Your task to perform on an android device: Do I have any events tomorrow? Image 0: 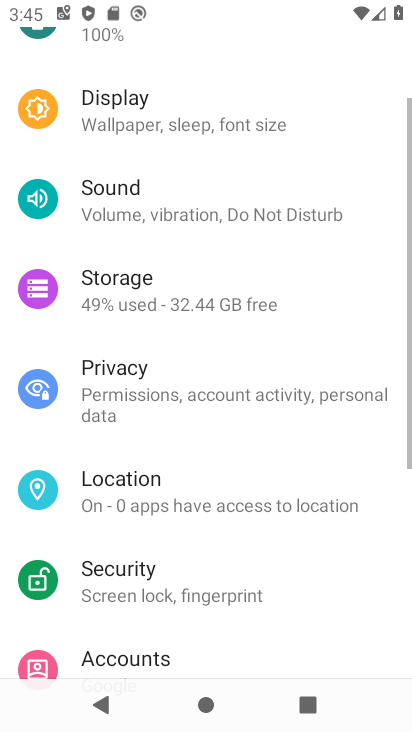
Step 0: click (264, 587)
Your task to perform on an android device: Do I have any events tomorrow? Image 1: 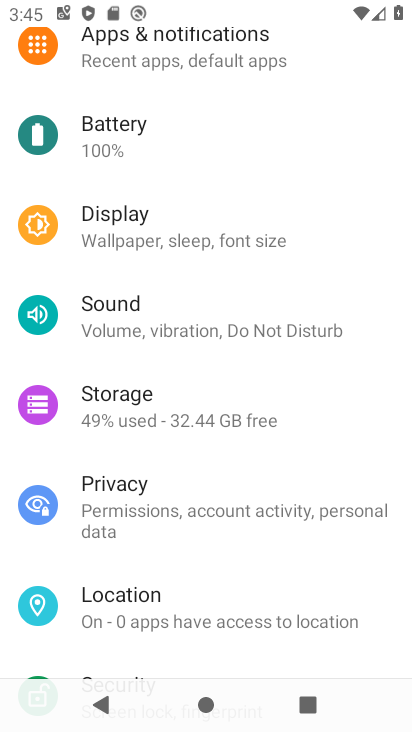
Step 1: press home button
Your task to perform on an android device: Do I have any events tomorrow? Image 2: 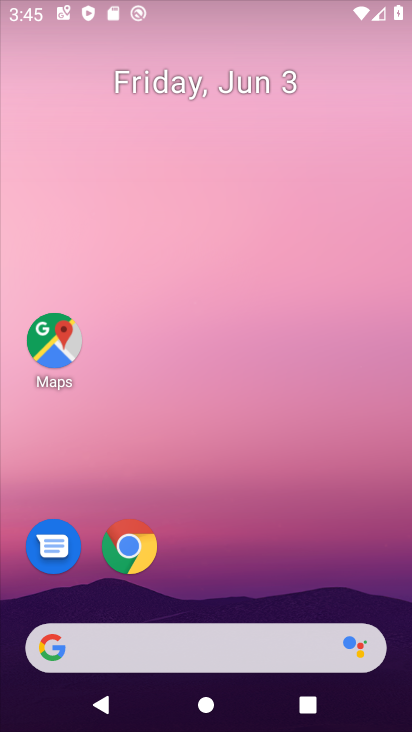
Step 2: drag from (239, 531) to (297, 49)
Your task to perform on an android device: Do I have any events tomorrow? Image 3: 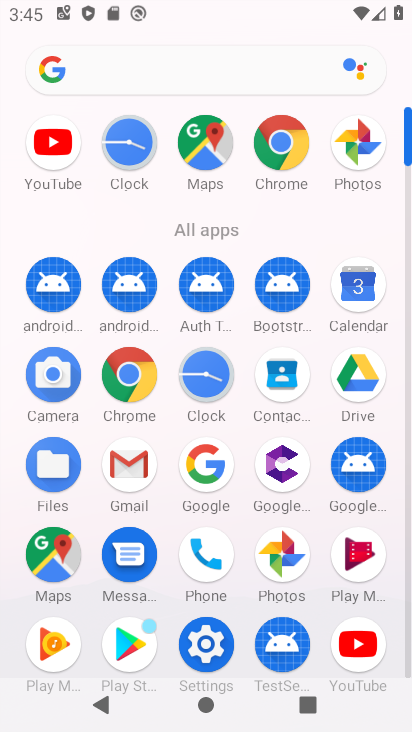
Step 3: click (360, 285)
Your task to perform on an android device: Do I have any events tomorrow? Image 4: 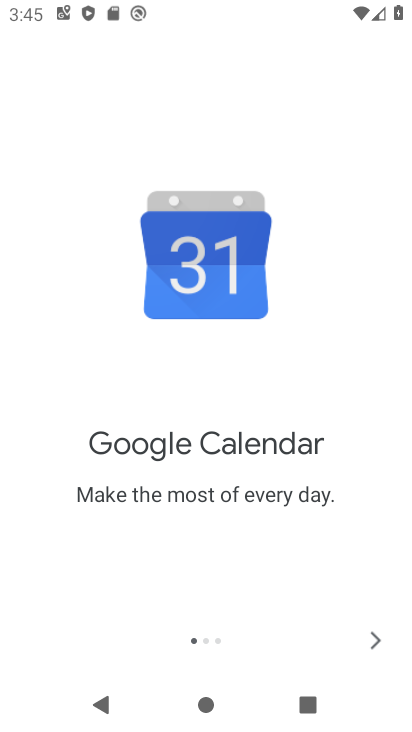
Step 4: click (366, 643)
Your task to perform on an android device: Do I have any events tomorrow? Image 5: 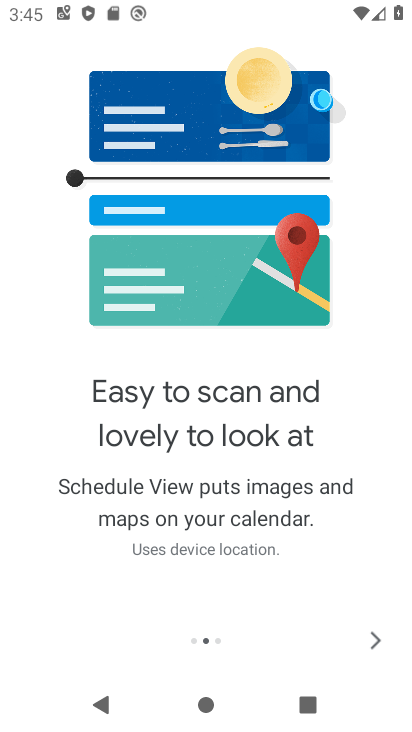
Step 5: click (368, 641)
Your task to perform on an android device: Do I have any events tomorrow? Image 6: 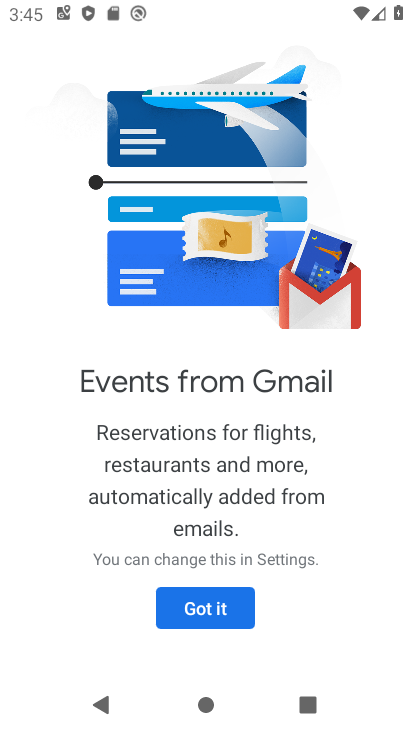
Step 6: click (251, 610)
Your task to perform on an android device: Do I have any events tomorrow? Image 7: 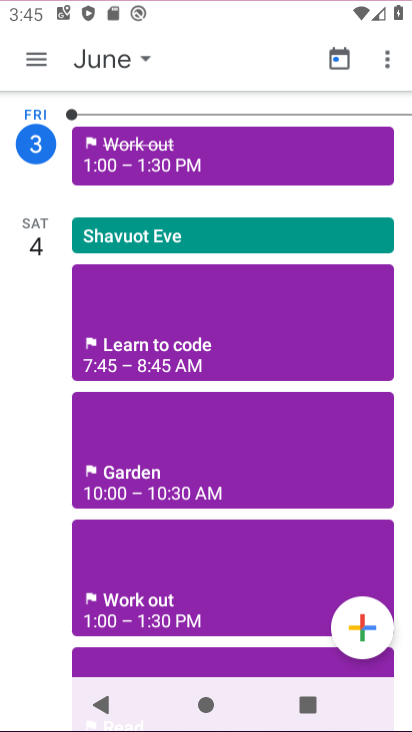
Step 7: click (229, 607)
Your task to perform on an android device: Do I have any events tomorrow? Image 8: 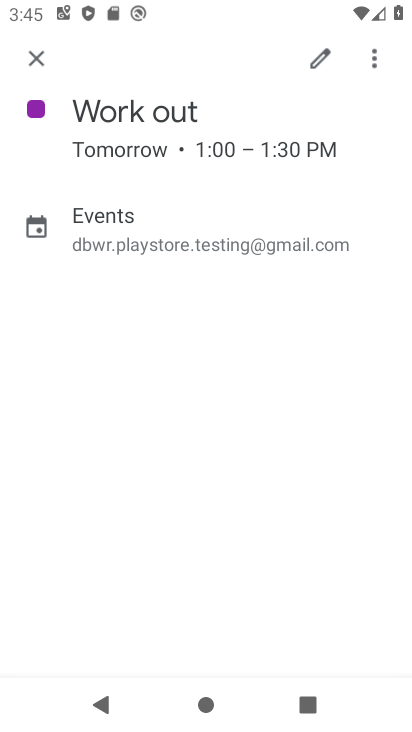
Step 8: click (44, 60)
Your task to perform on an android device: Do I have any events tomorrow? Image 9: 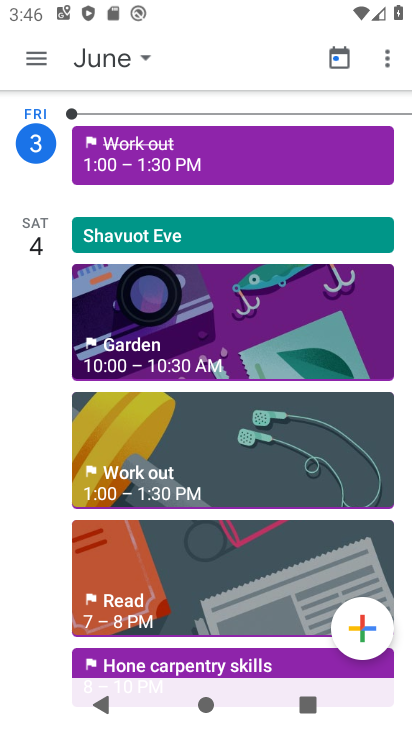
Step 9: task complete